Your task to perform on an android device: Go to settings Image 0: 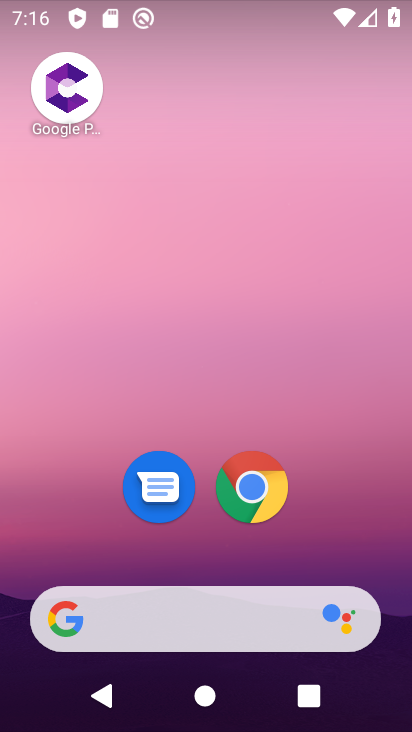
Step 0: drag from (292, 639) to (216, 213)
Your task to perform on an android device: Go to settings Image 1: 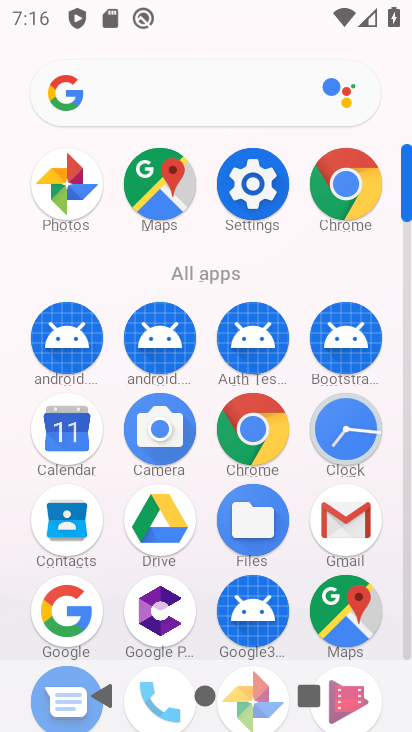
Step 1: click (251, 192)
Your task to perform on an android device: Go to settings Image 2: 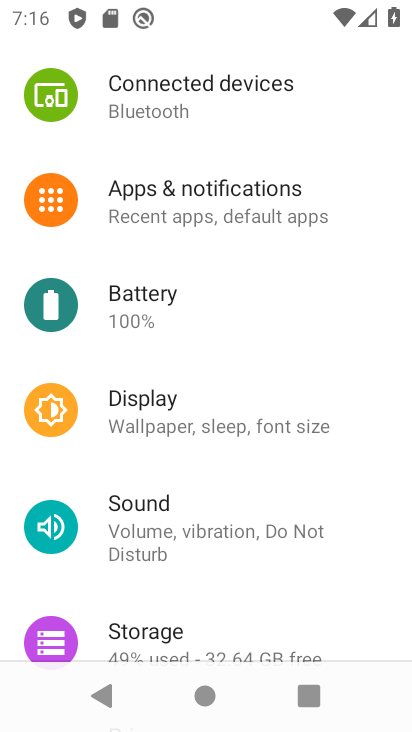
Step 2: task complete